Your task to perform on an android device: See recent photos Image 0: 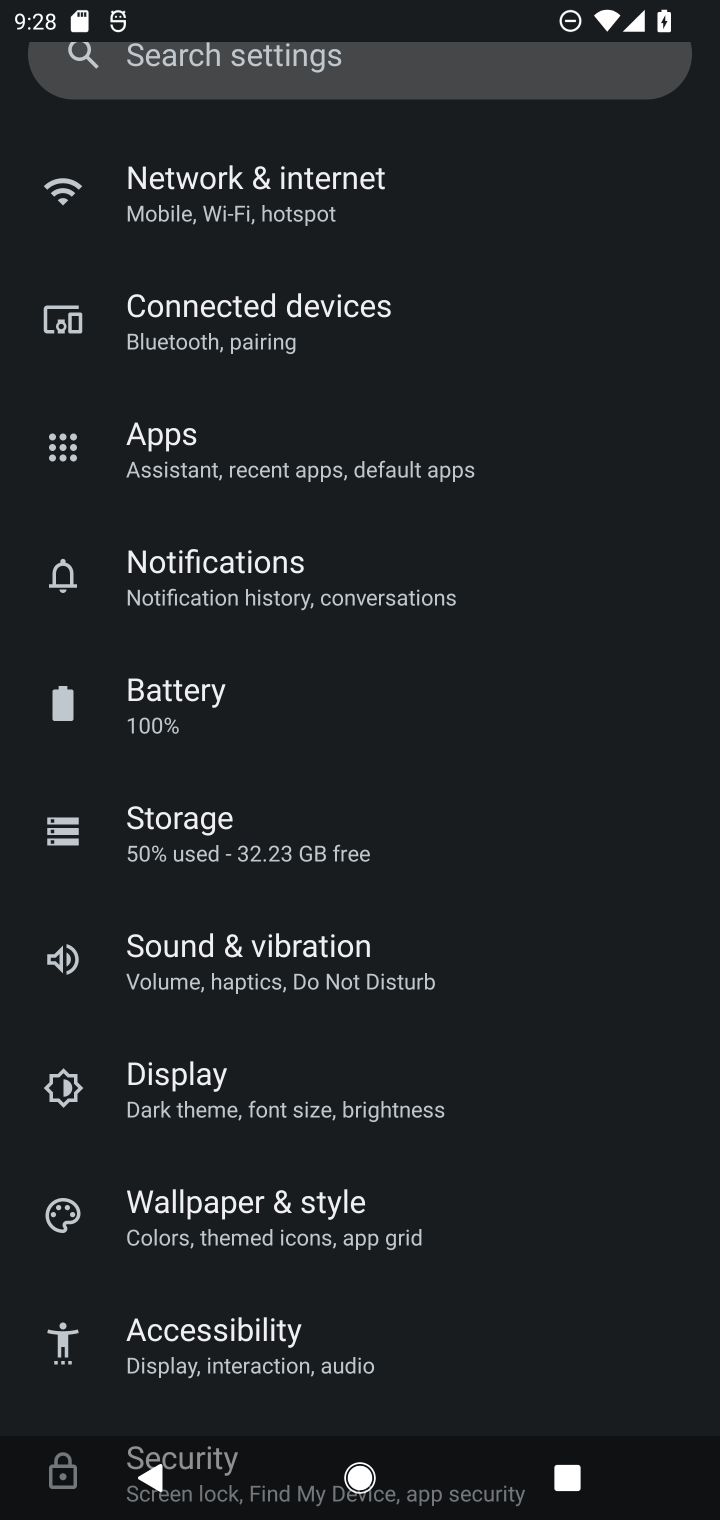
Step 0: task complete